Your task to perform on an android device: refresh tabs in the chrome app Image 0: 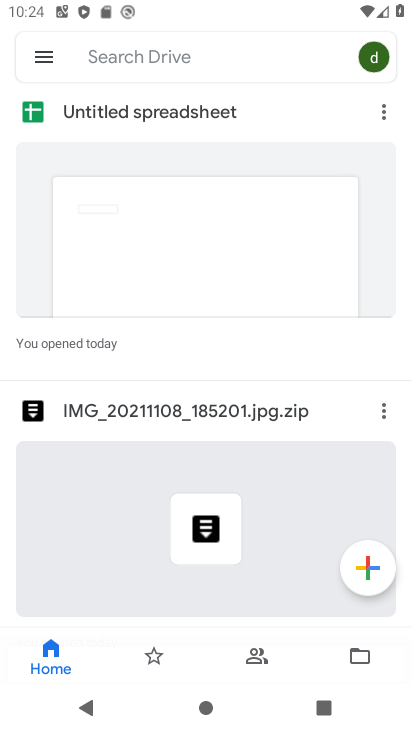
Step 0: press home button
Your task to perform on an android device: refresh tabs in the chrome app Image 1: 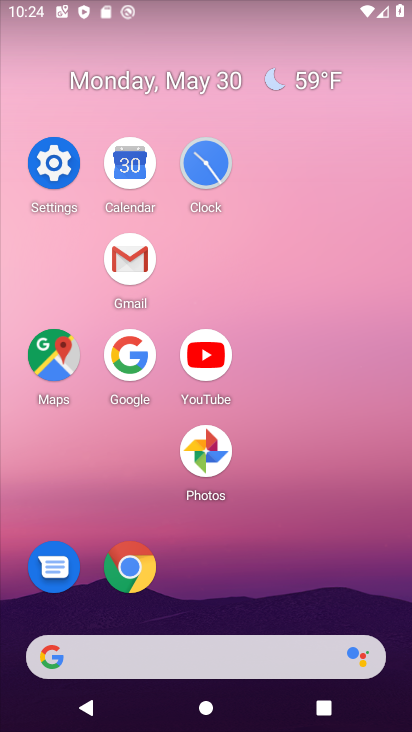
Step 1: click (127, 600)
Your task to perform on an android device: refresh tabs in the chrome app Image 2: 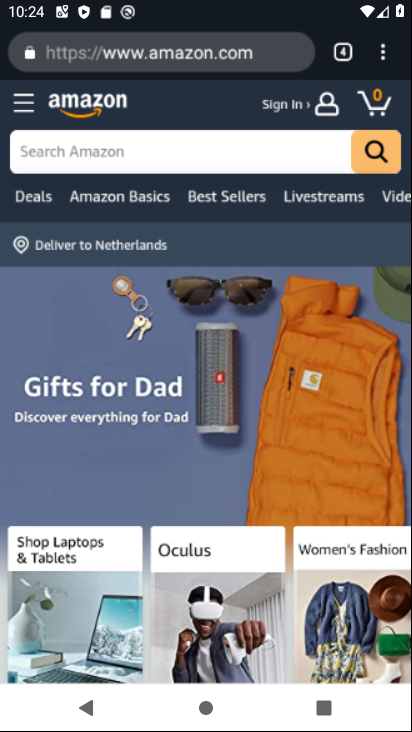
Step 2: click (390, 51)
Your task to perform on an android device: refresh tabs in the chrome app Image 3: 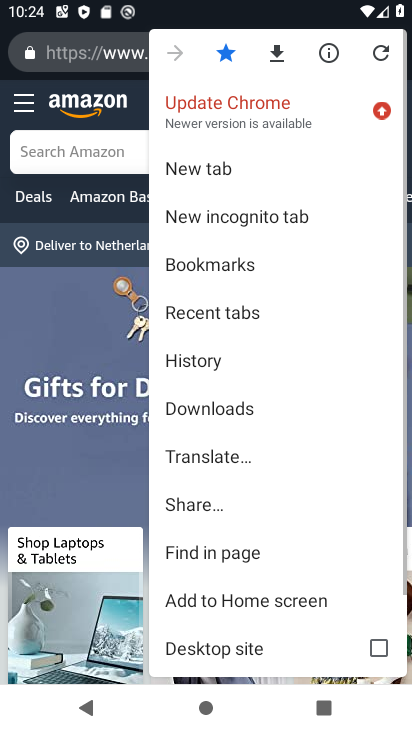
Step 3: click (385, 39)
Your task to perform on an android device: refresh tabs in the chrome app Image 4: 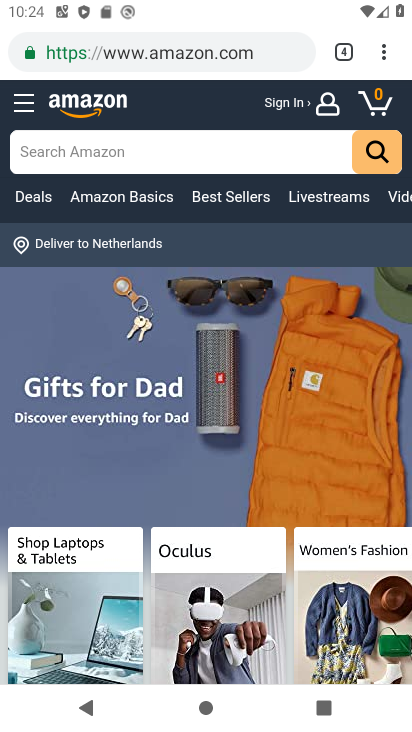
Step 4: task complete